Your task to perform on an android device: empty trash in the gmail app Image 0: 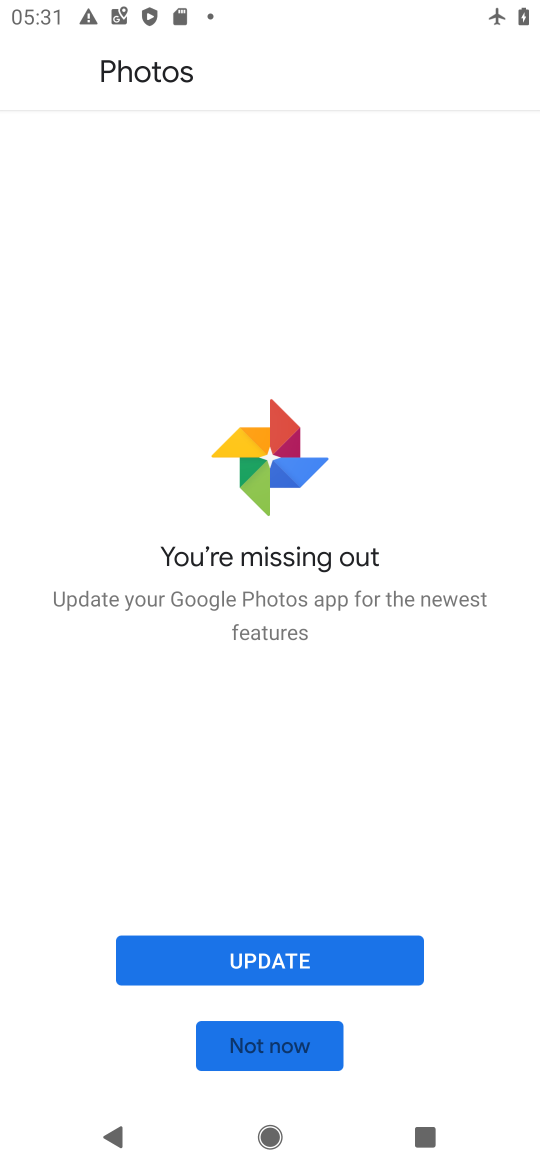
Step 0: press home button
Your task to perform on an android device: empty trash in the gmail app Image 1: 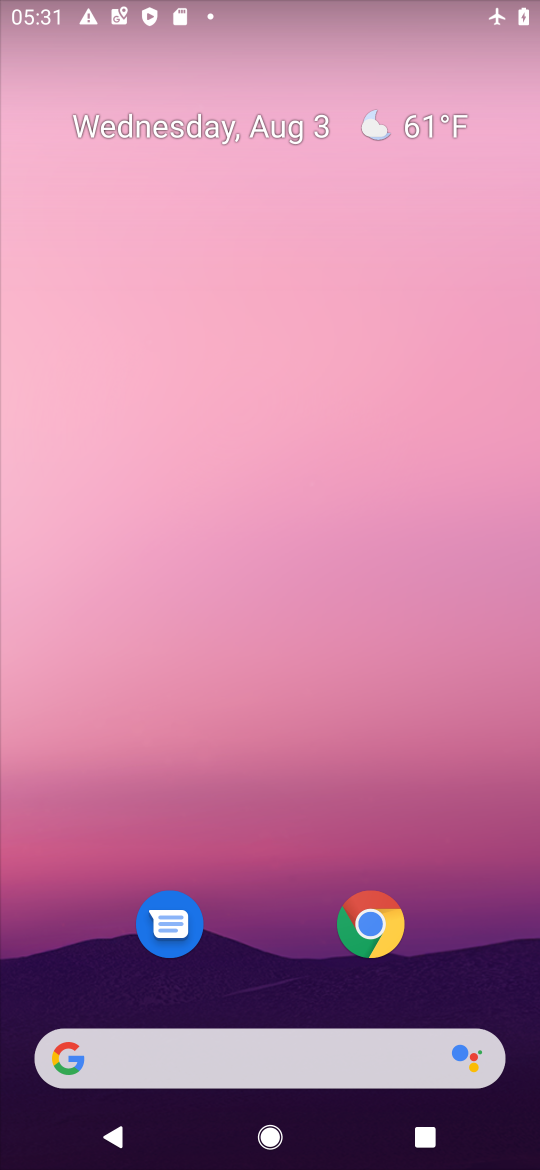
Step 1: drag from (271, 935) to (260, 305)
Your task to perform on an android device: empty trash in the gmail app Image 2: 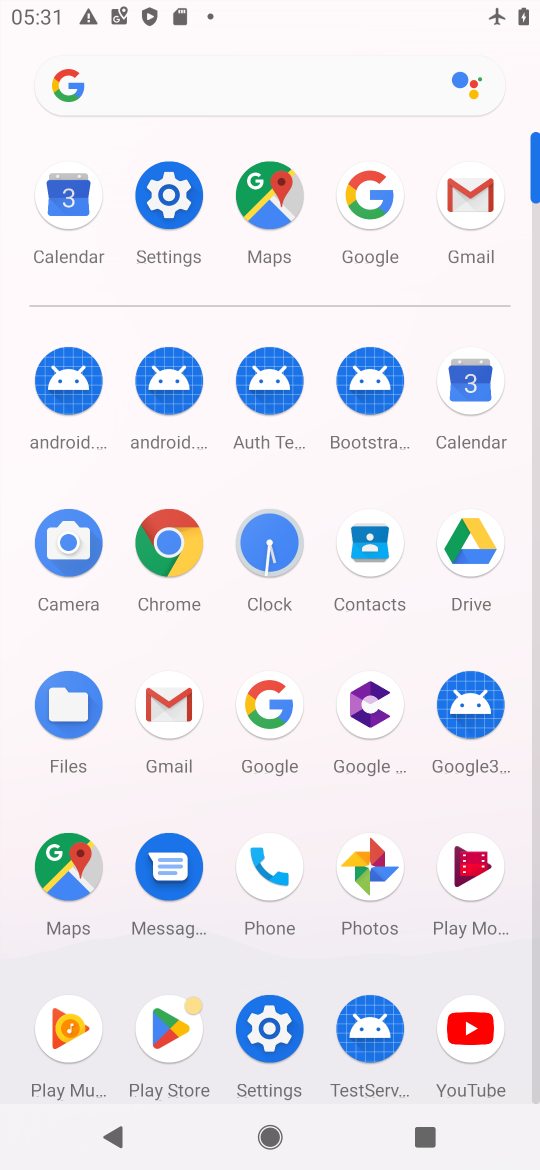
Step 2: click (450, 207)
Your task to perform on an android device: empty trash in the gmail app Image 3: 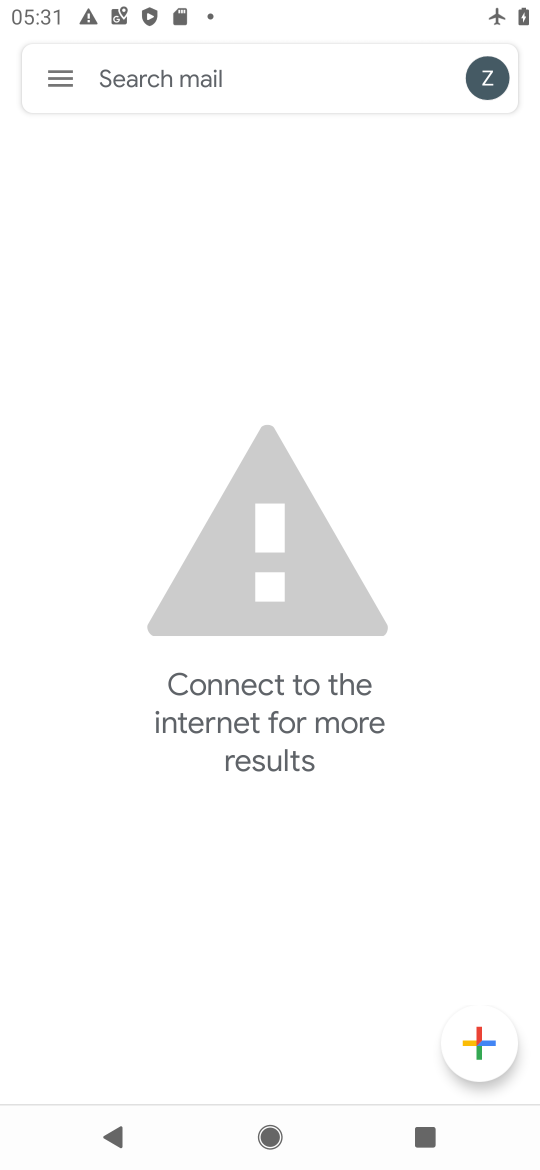
Step 3: click (64, 73)
Your task to perform on an android device: empty trash in the gmail app Image 4: 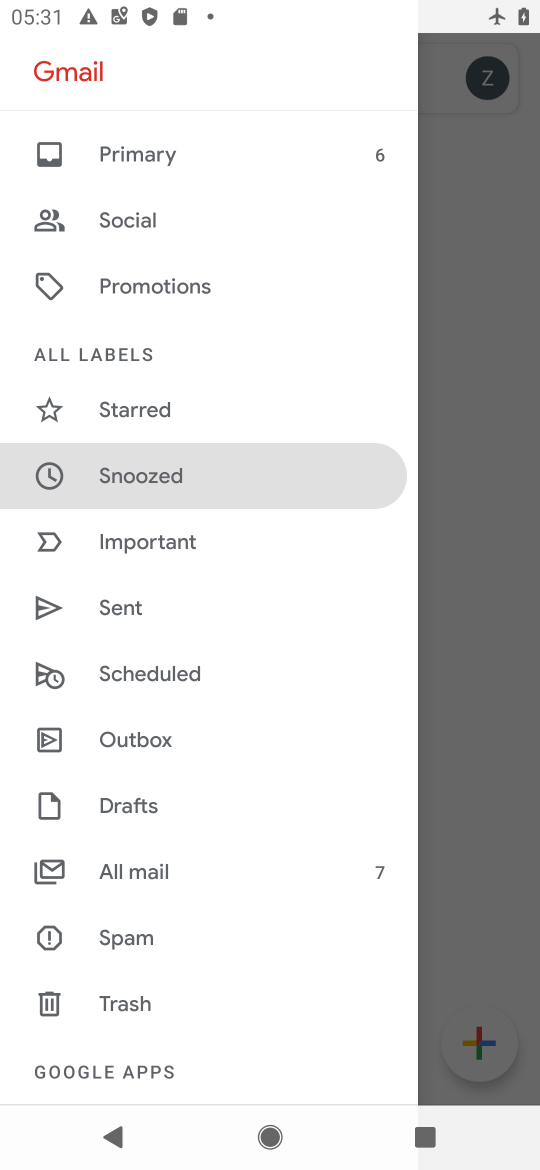
Step 4: click (141, 1009)
Your task to perform on an android device: empty trash in the gmail app Image 5: 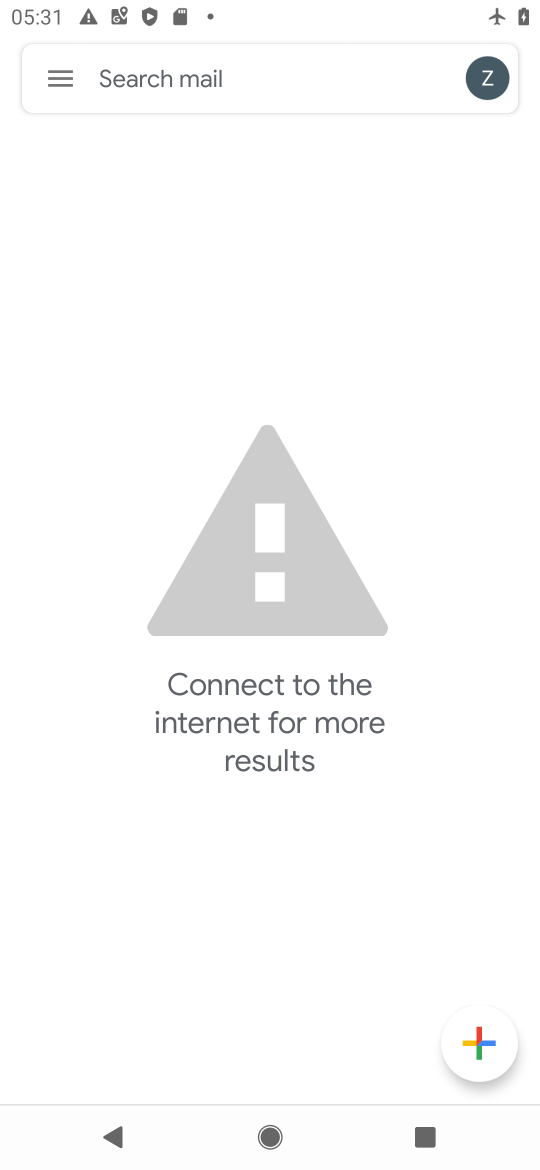
Step 5: task complete